Your task to perform on an android device: uninstall "Facebook" Image 0: 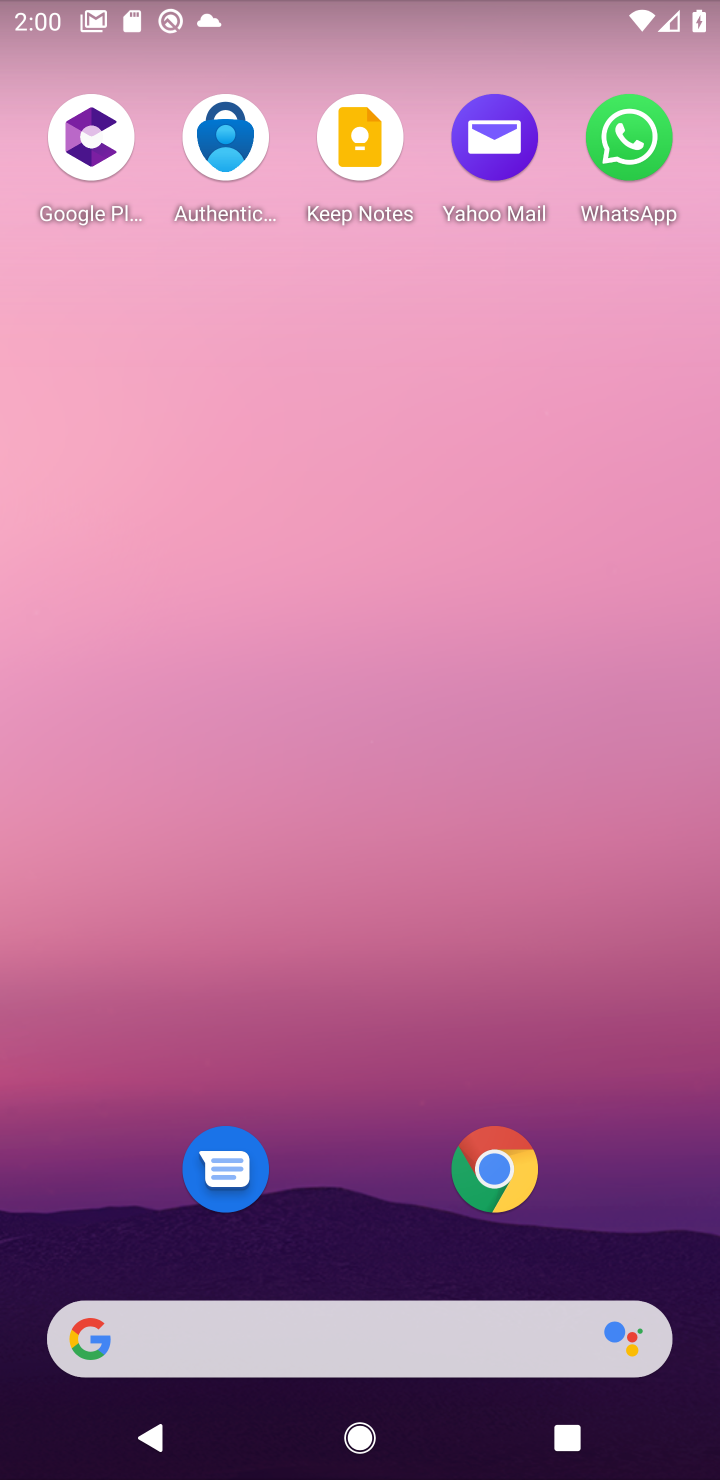
Step 0: press home button
Your task to perform on an android device: uninstall "Facebook" Image 1: 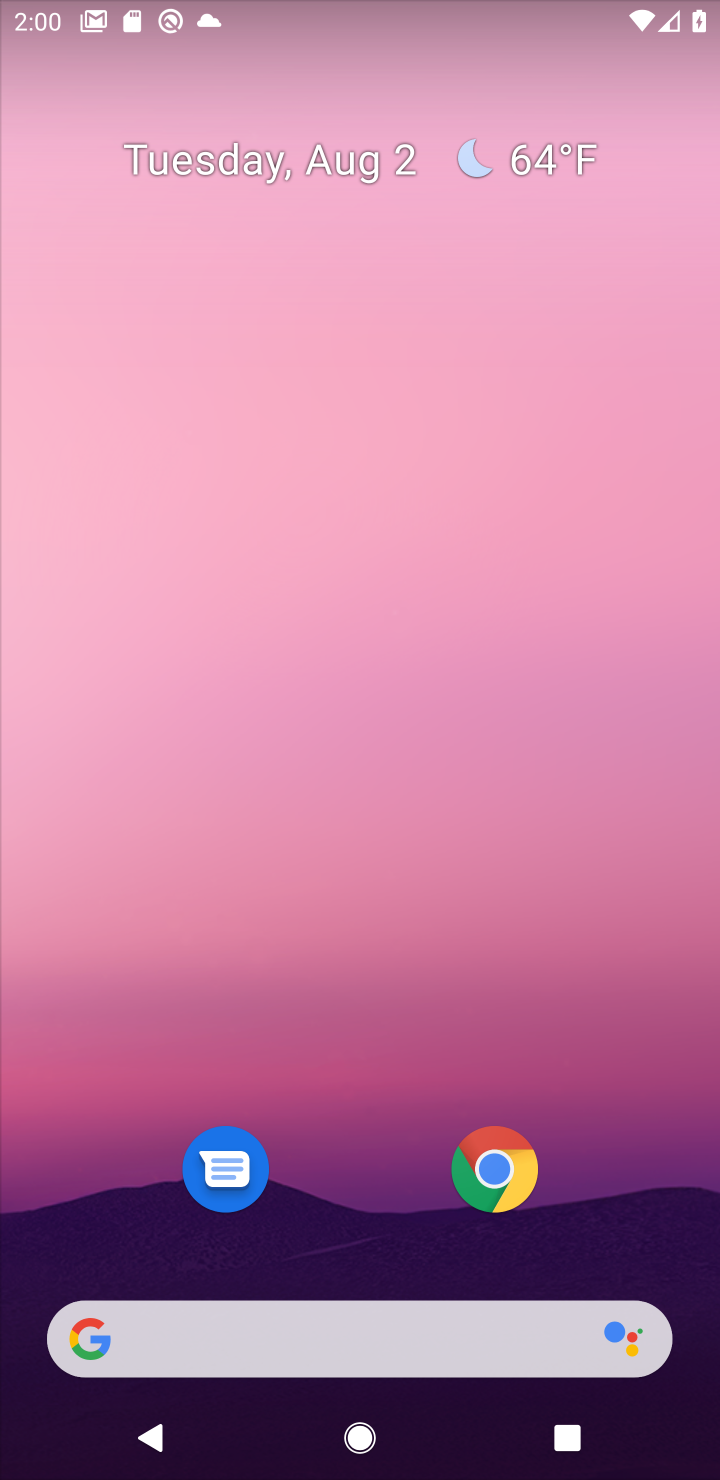
Step 1: drag from (375, 1247) to (357, 502)
Your task to perform on an android device: uninstall "Facebook" Image 2: 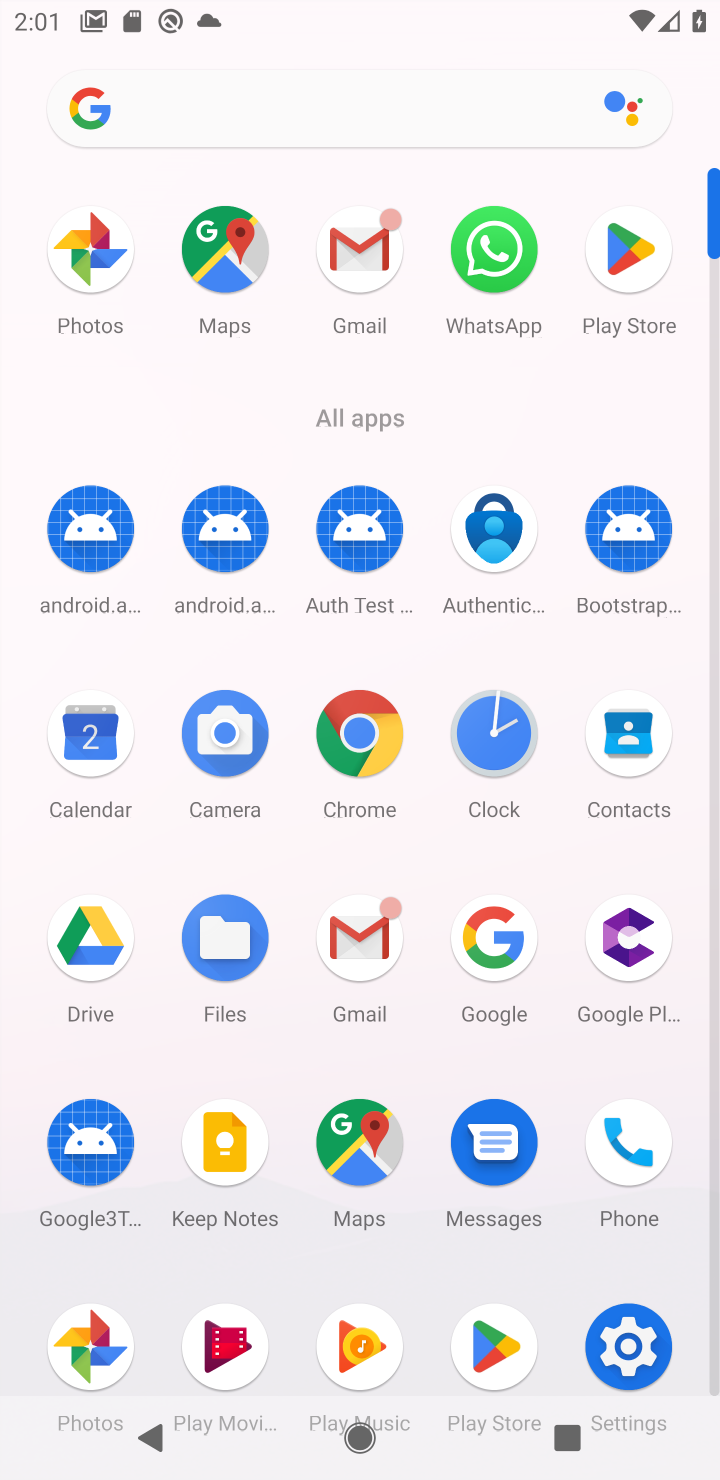
Step 2: click (621, 249)
Your task to perform on an android device: uninstall "Facebook" Image 3: 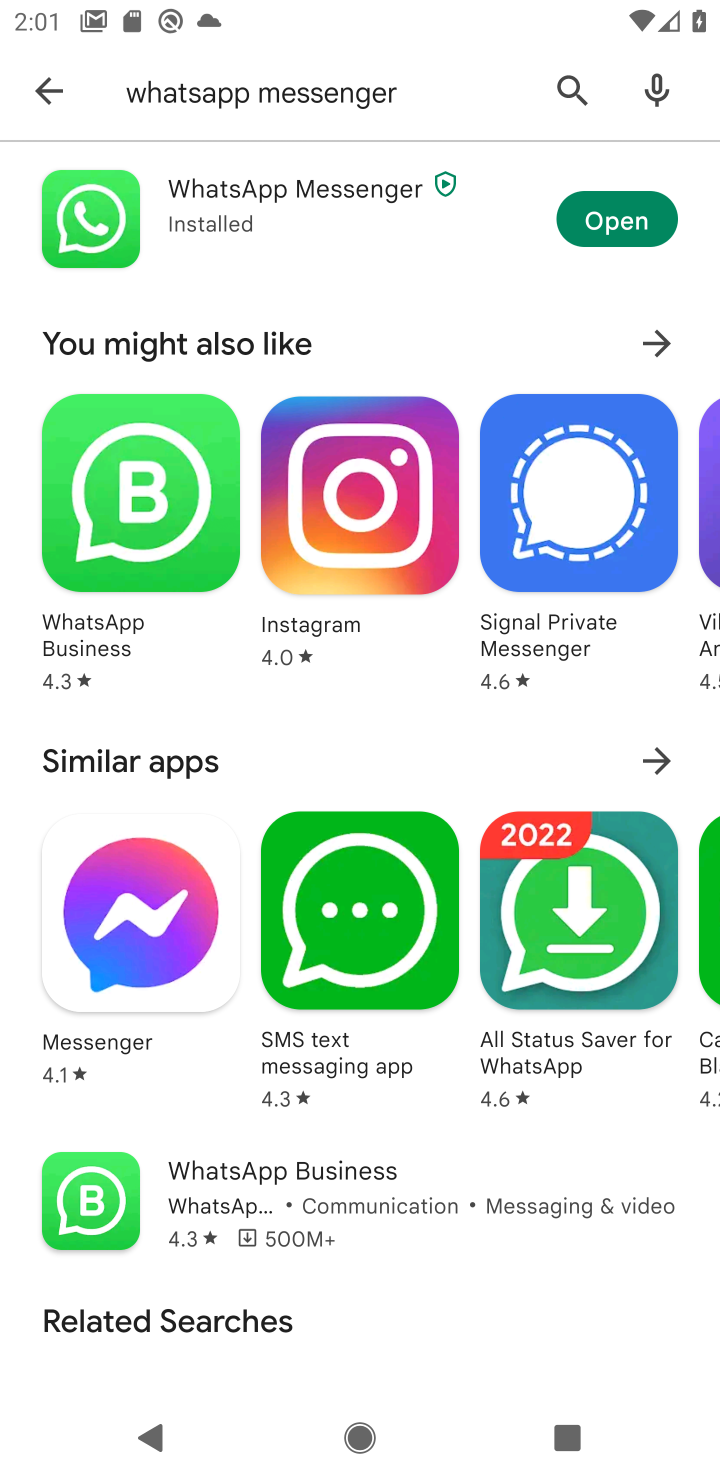
Step 3: click (563, 79)
Your task to perform on an android device: uninstall "Facebook" Image 4: 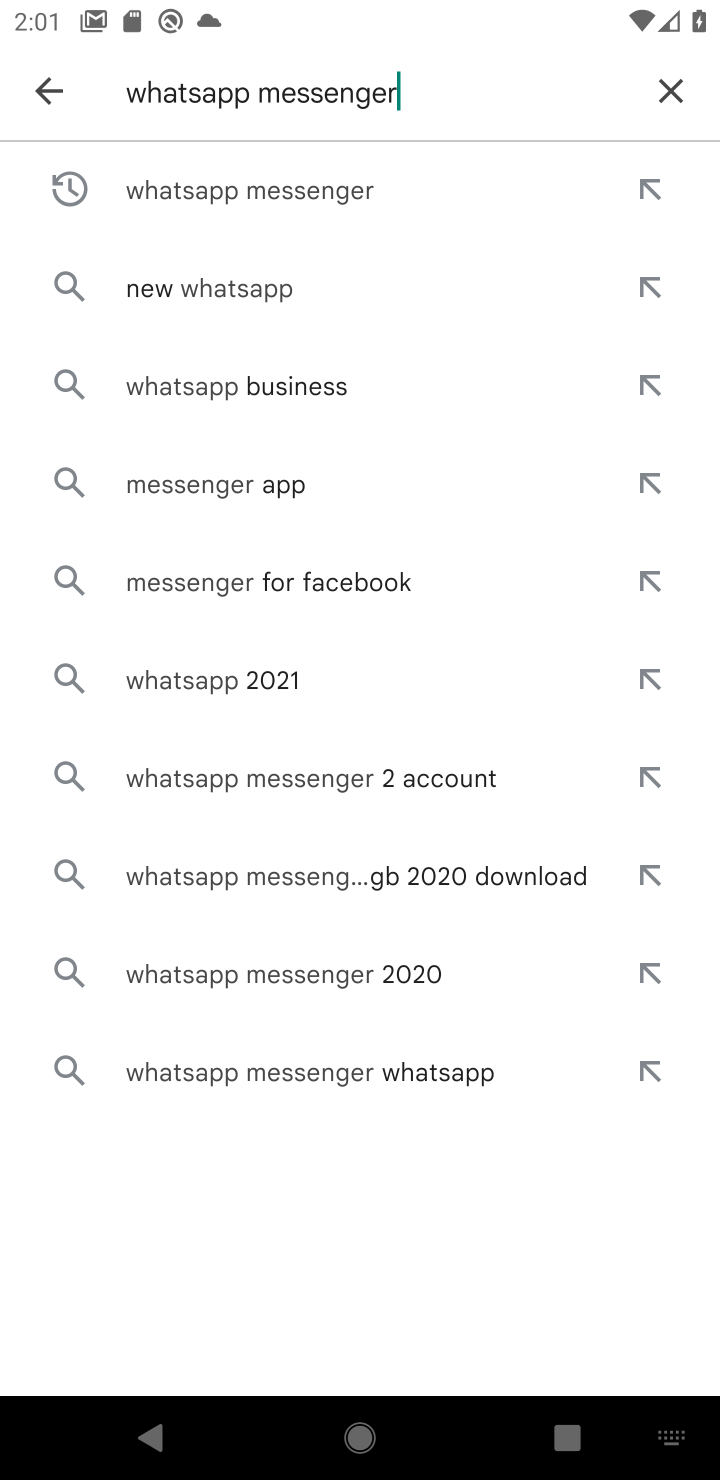
Step 4: click (672, 89)
Your task to perform on an android device: uninstall "Facebook" Image 5: 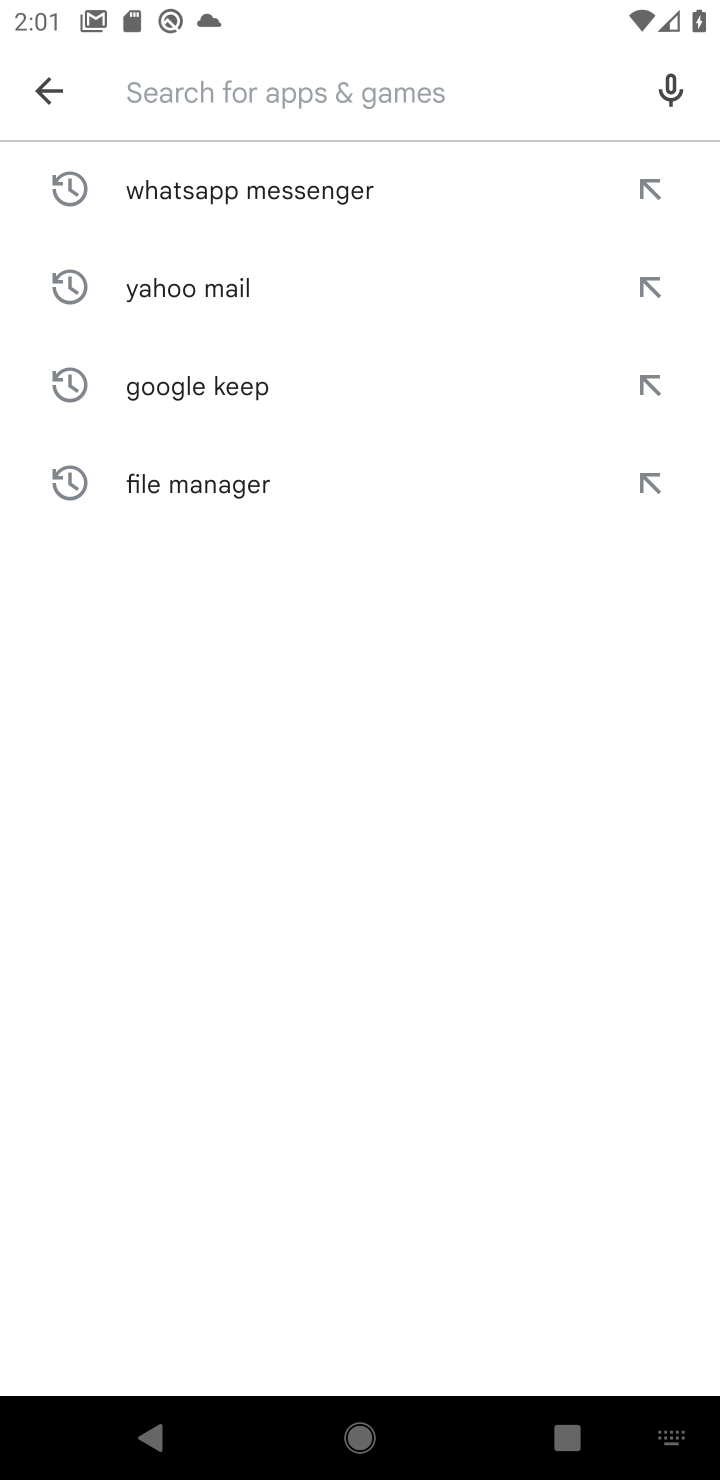
Step 5: type "Facebook"
Your task to perform on an android device: uninstall "Facebook" Image 6: 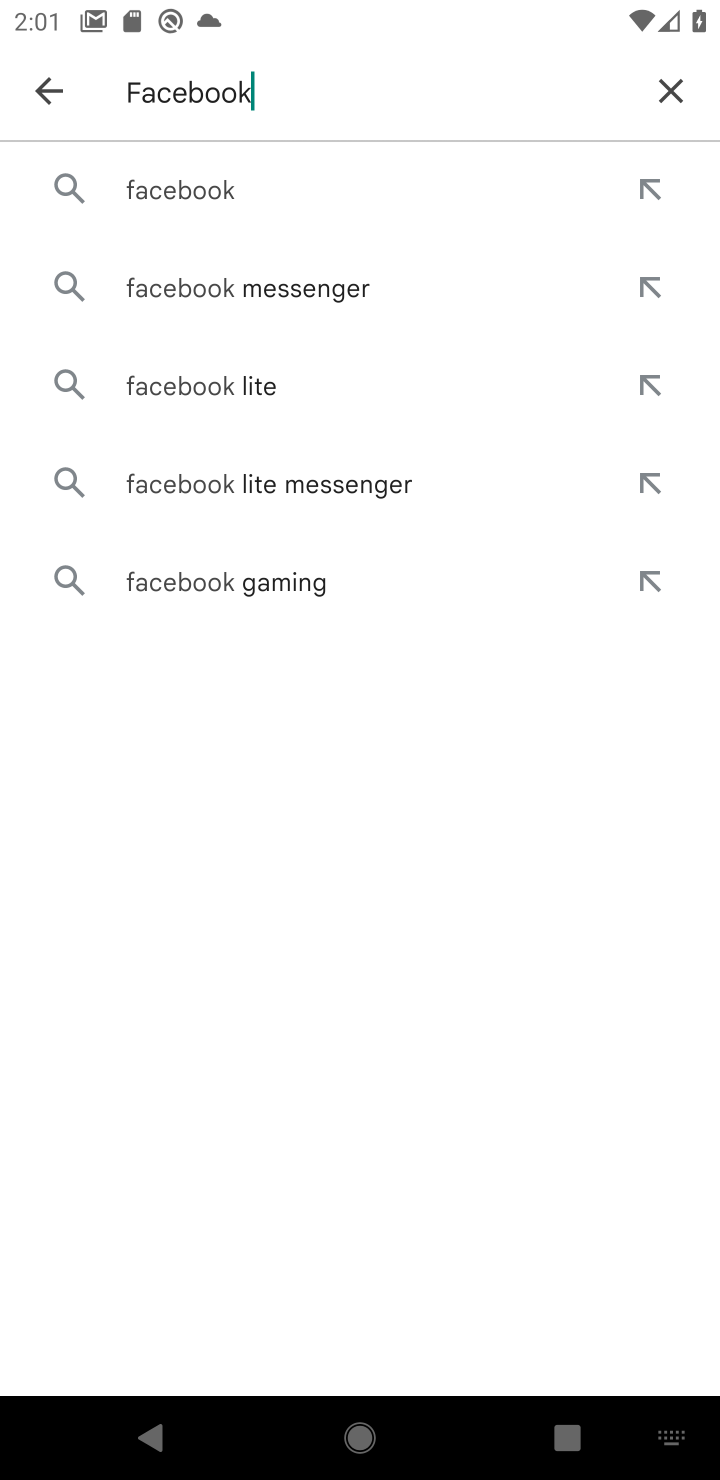
Step 6: click (199, 190)
Your task to perform on an android device: uninstall "Facebook" Image 7: 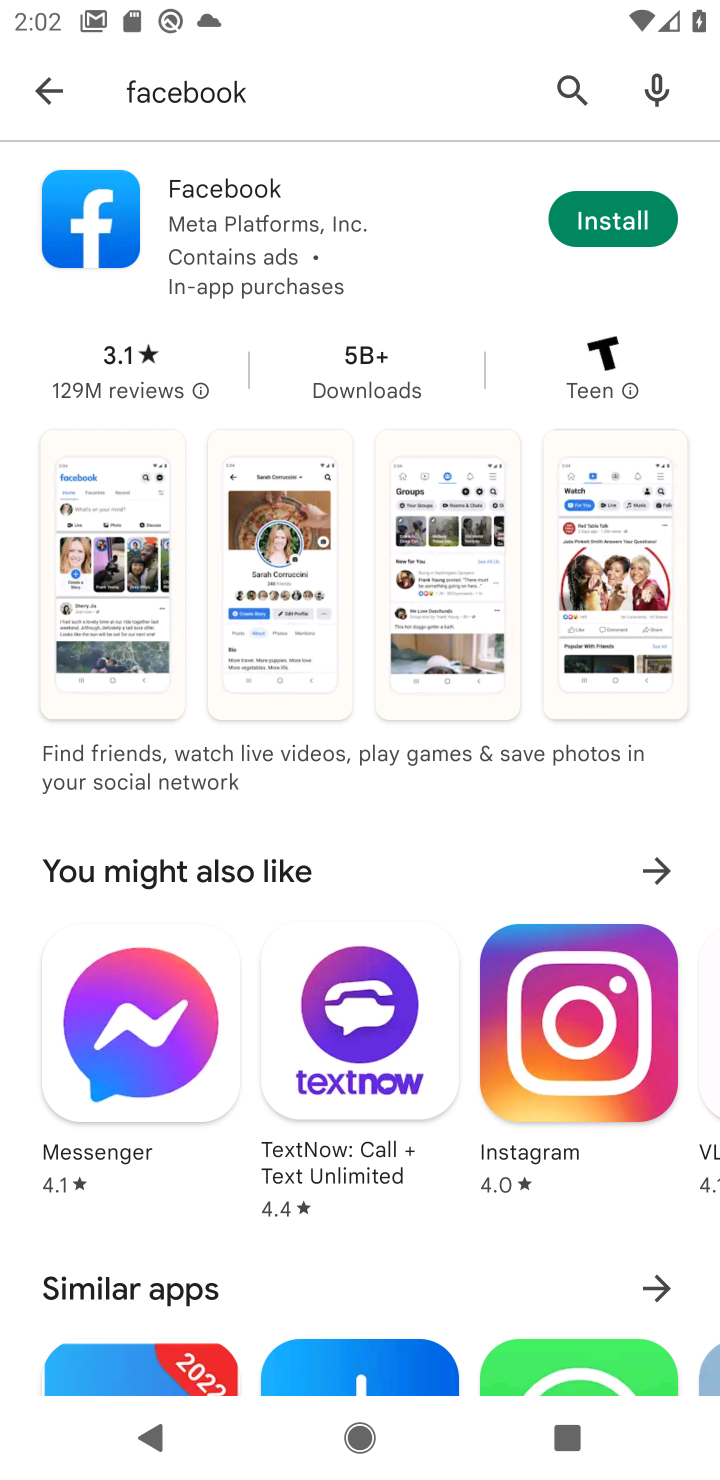
Step 7: task complete